Your task to perform on an android device: Open the Play Movies app and select the watchlist tab. Image 0: 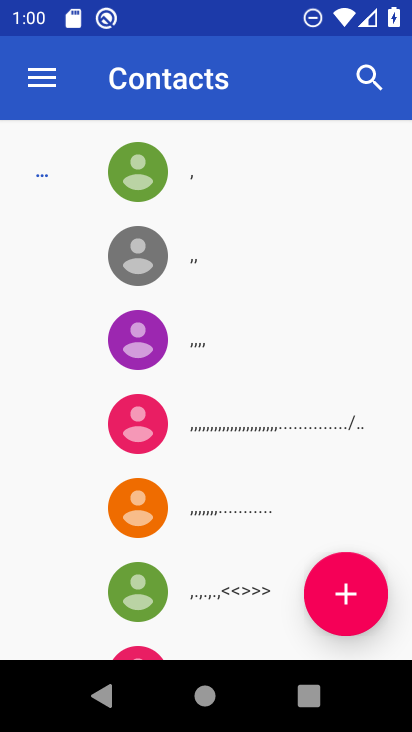
Step 0: press home button
Your task to perform on an android device: Open the Play Movies app and select the watchlist tab. Image 1: 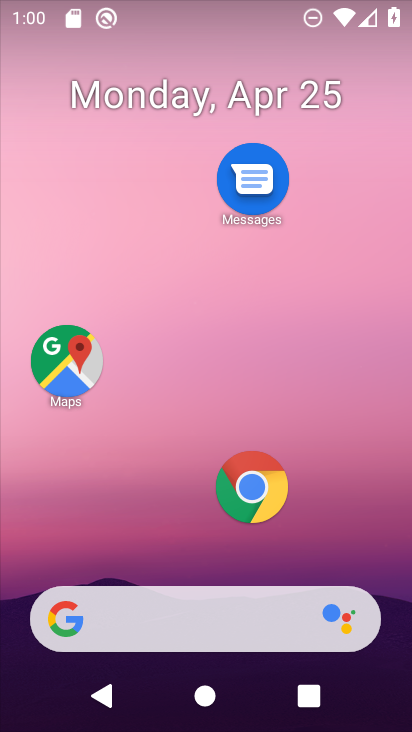
Step 1: drag from (311, 577) to (284, 50)
Your task to perform on an android device: Open the Play Movies app and select the watchlist tab. Image 2: 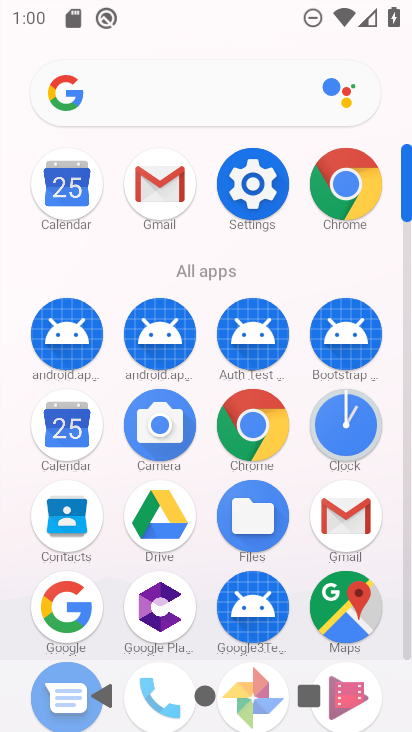
Step 2: drag from (303, 626) to (324, 193)
Your task to perform on an android device: Open the Play Movies app and select the watchlist tab. Image 3: 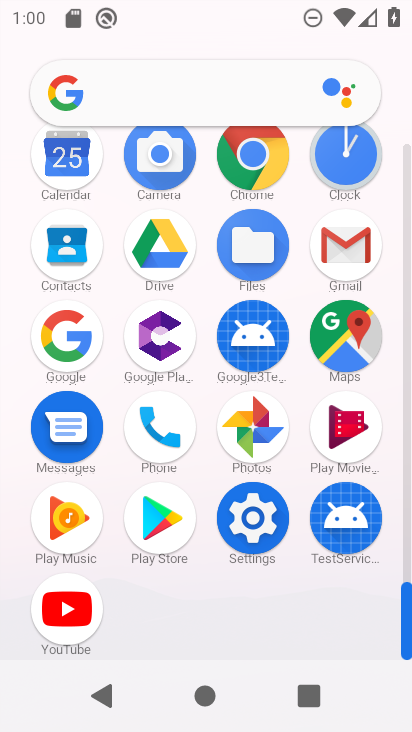
Step 3: click (324, 440)
Your task to perform on an android device: Open the Play Movies app and select the watchlist tab. Image 4: 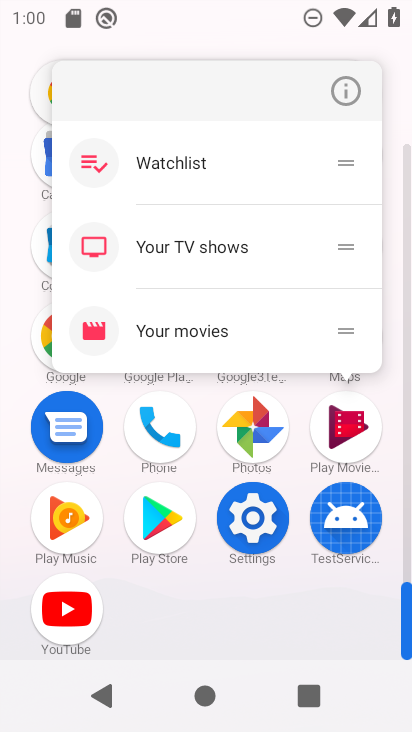
Step 4: click (324, 440)
Your task to perform on an android device: Open the Play Movies app and select the watchlist tab. Image 5: 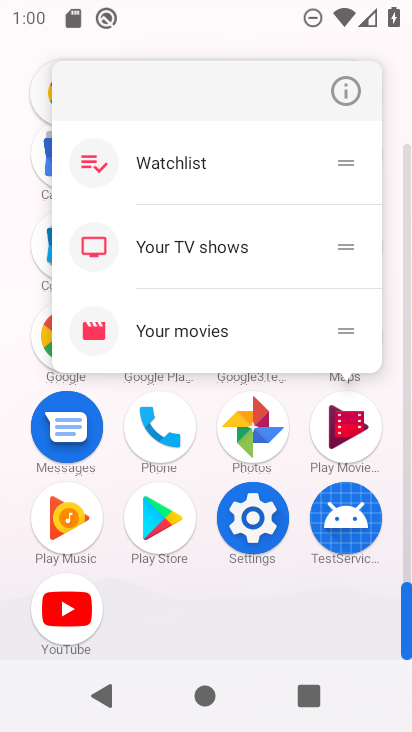
Step 5: click (336, 431)
Your task to perform on an android device: Open the Play Movies app and select the watchlist tab. Image 6: 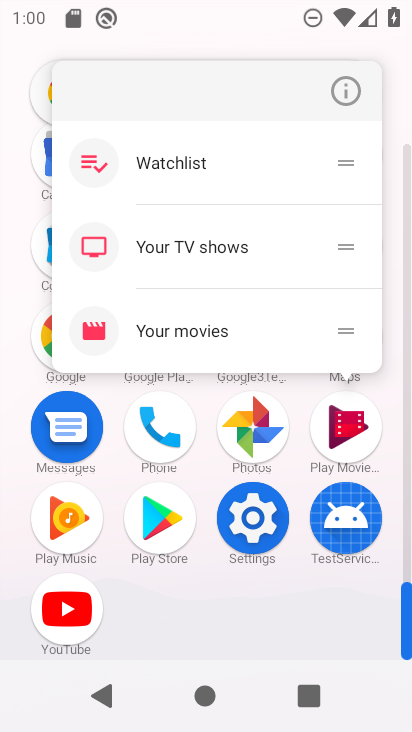
Step 6: click (346, 417)
Your task to perform on an android device: Open the Play Movies app and select the watchlist tab. Image 7: 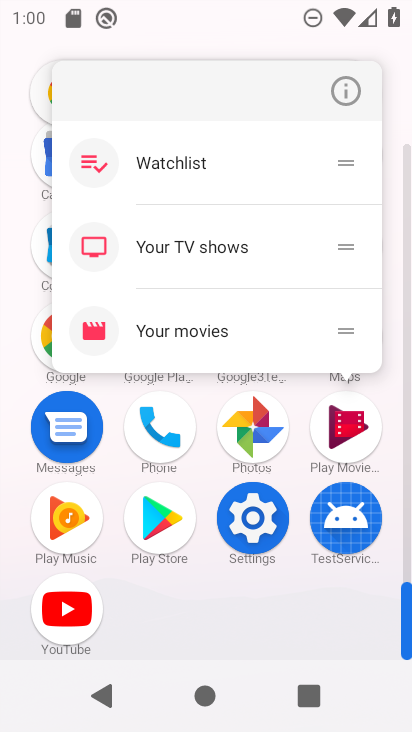
Step 7: click (345, 437)
Your task to perform on an android device: Open the Play Movies app and select the watchlist tab. Image 8: 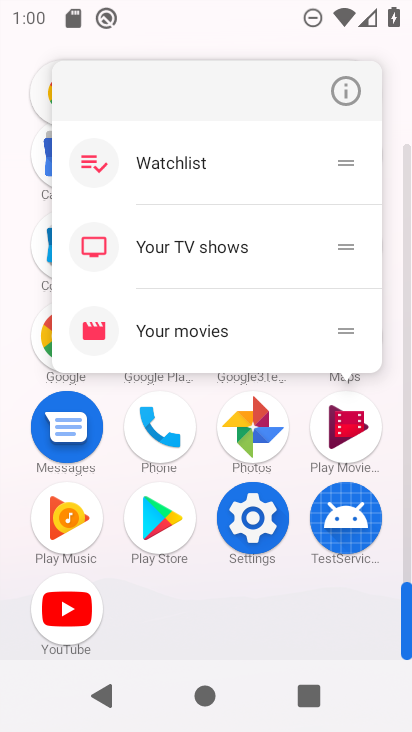
Step 8: click (345, 430)
Your task to perform on an android device: Open the Play Movies app and select the watchlist tab. Image 9: 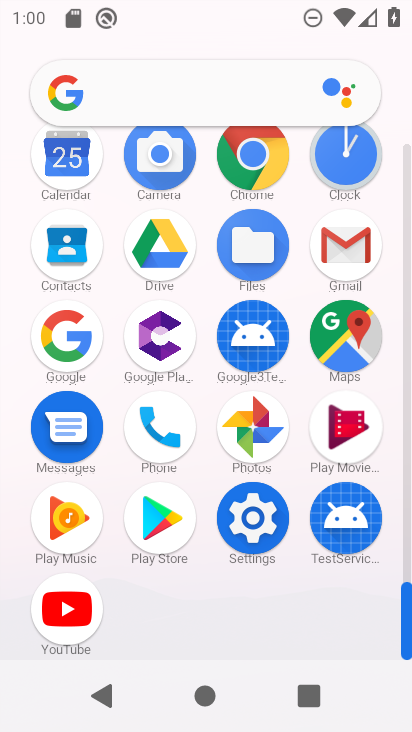
Step 9: click (348, 437)
Your task to perform on an android device: Open the Play Movies app and select the watchlist tab. Image 10: 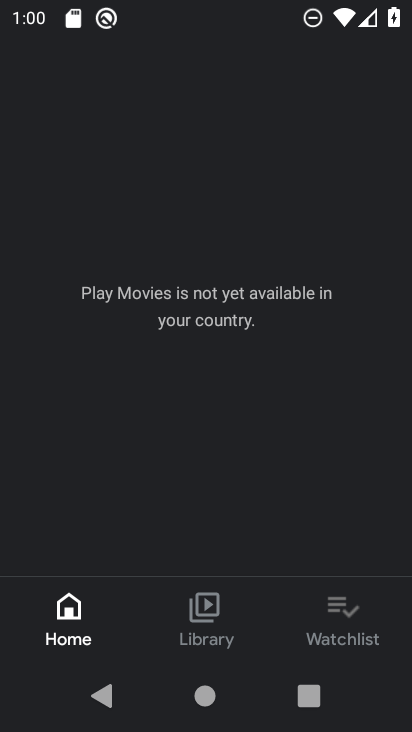
Step 10: click (319, 613)
Your task to perform on an android device: Open the Play Movies app and select the watchlist tab. Image 11: 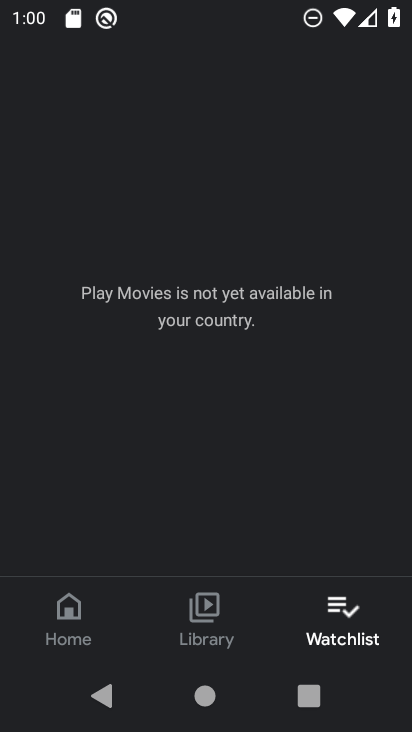
Step 11: task complete